Your task to perform on an android device: Open accessibility settings Image 0: 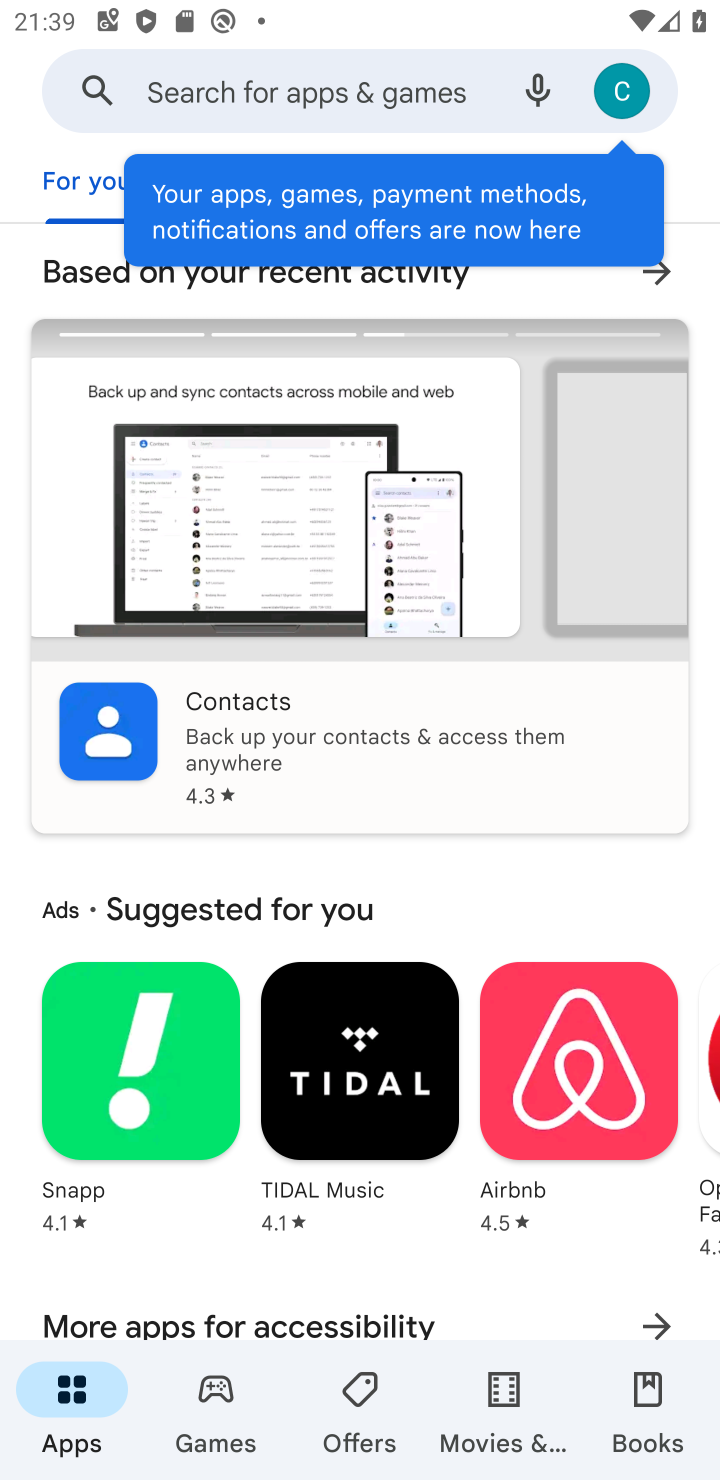
Step 0: press home button
Your task to perform on an android device: Open accessibility settings Image 1: 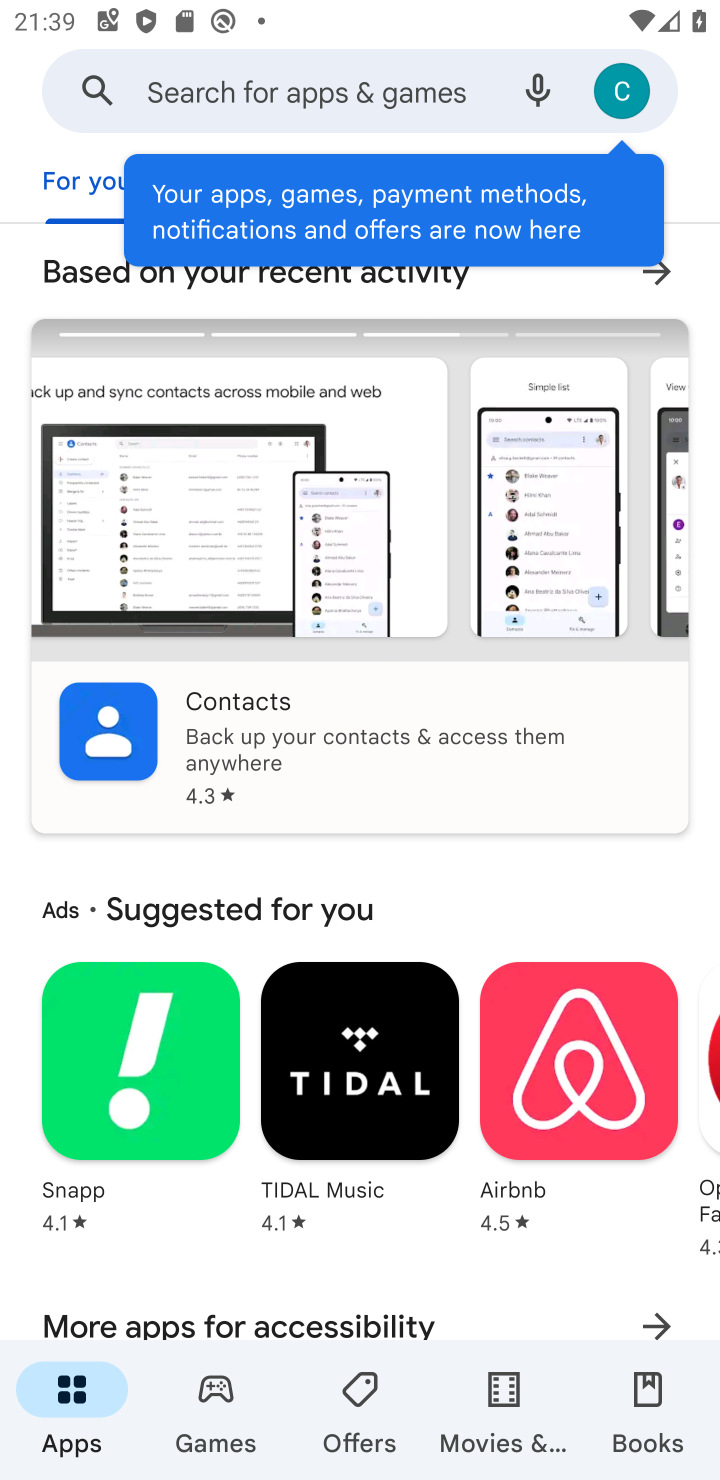
Step 1: press home button
Your task to perform on an android device: Open accessibility settings Image 2: 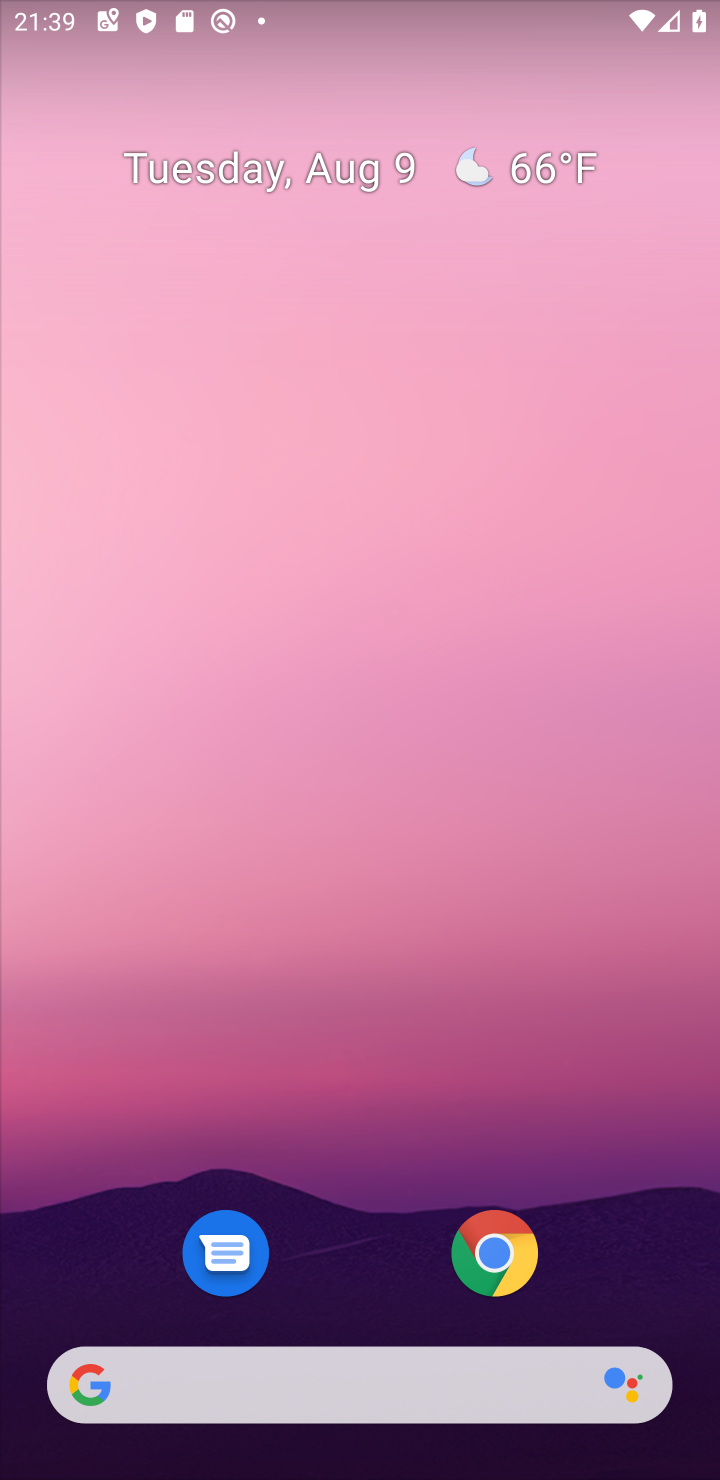
Step 2: drag from (322, 1101) to (372, 127)
Your task to perform on an android device: Open accessibility settings Image 3: 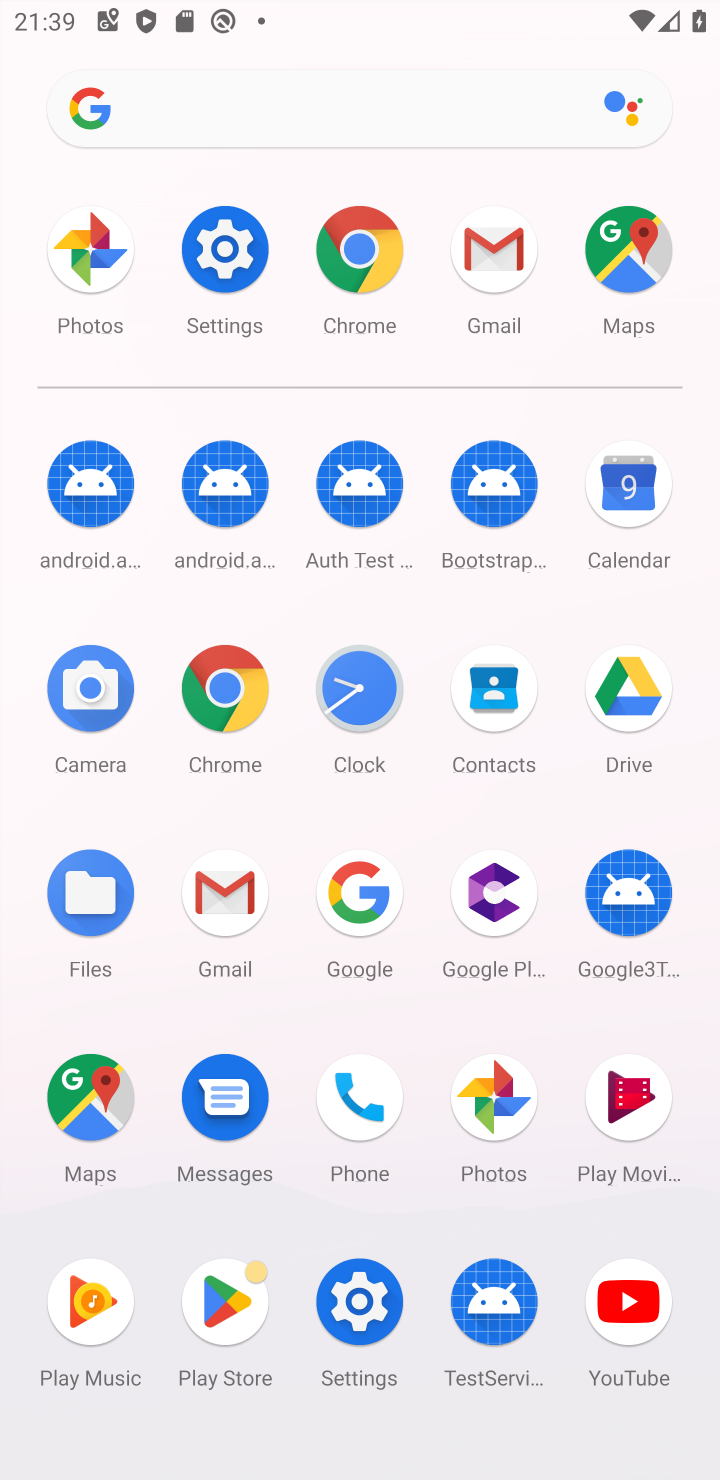
Step 3: click (360, 1313)
Your task to perform on an android device: Open accessibility settings Image 4: 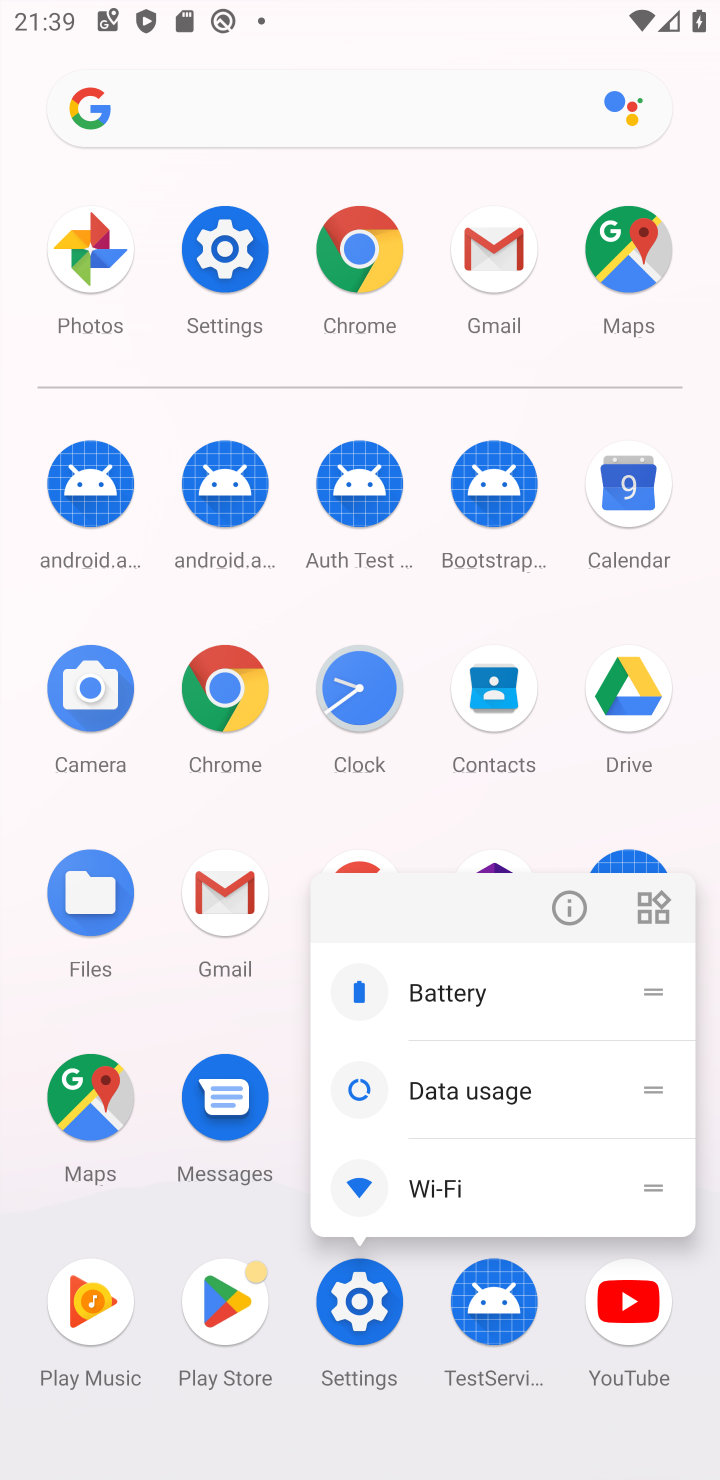
Step 4: click (360, 1313)
Your task to perform on an android device: Open accessibility settings Image 5: 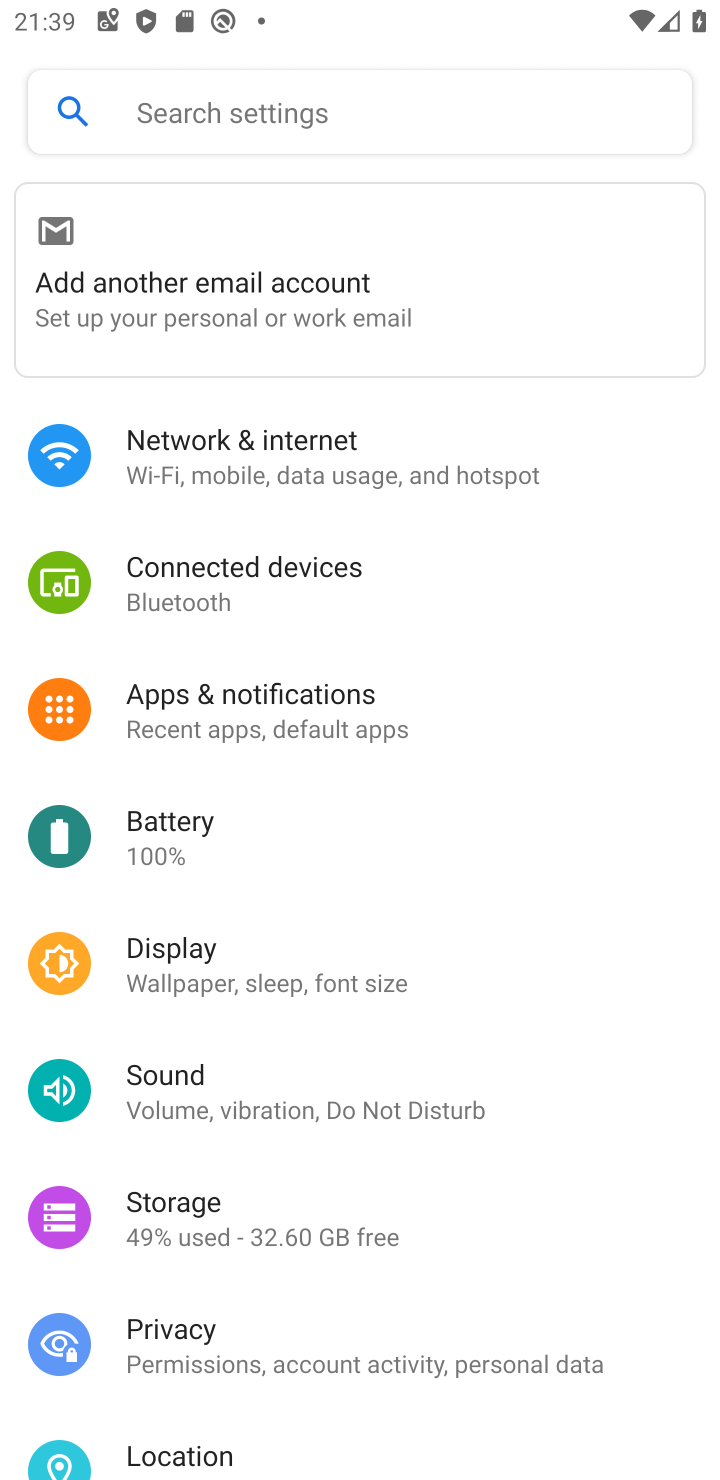
Step 5: drag from (339, 1248) to (392, 509)
Your task to perform on an android device: Open accessibility settings Image 6: 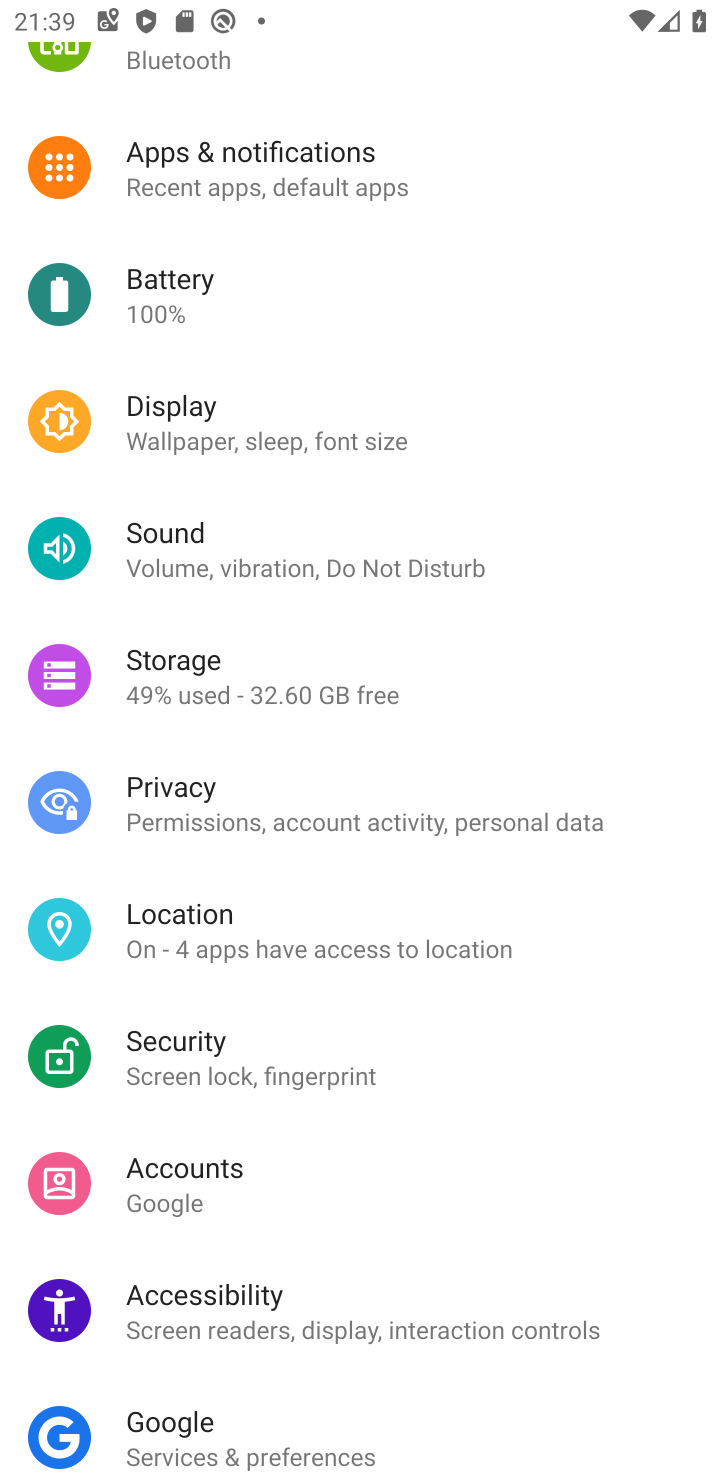
Step 6: click (266, 1347)
Your task to perform on an android device: Open accessibility settings Image 7: 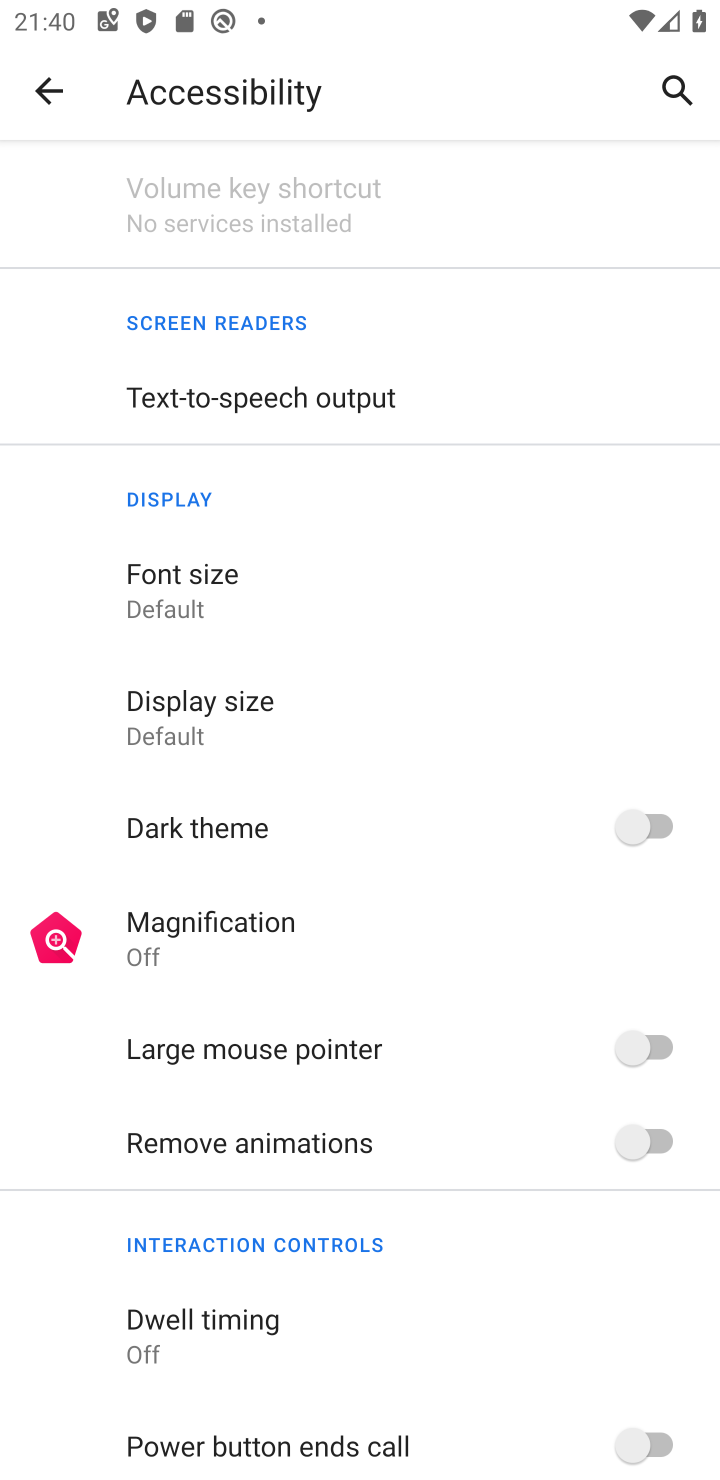
Step 7: task complete